Your task to perform on an android device: Go to location settings Image 0: 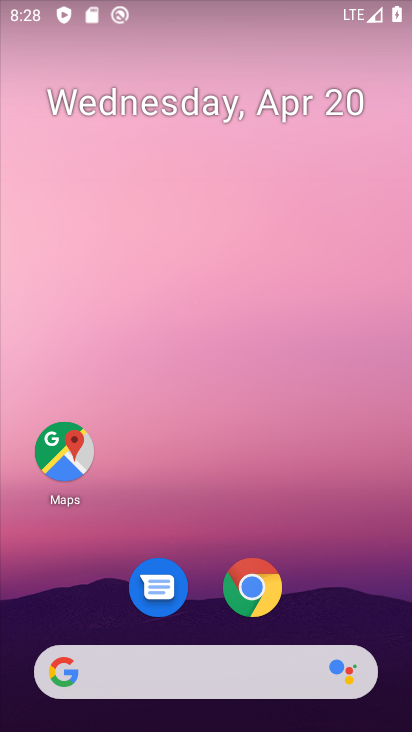
Step 0: drag from (365, 545) to (360, 197)
Your task to perform on an android device: Go to location settings Image 1: 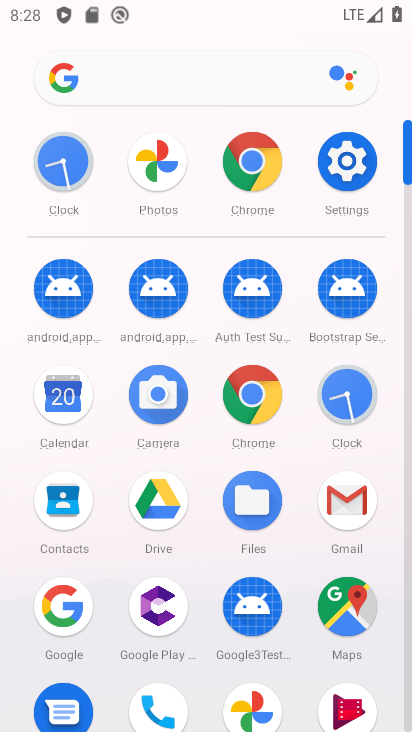
Step 1: click (349, 161)
Your task to perform on an android device: Go to location settings Image 2: 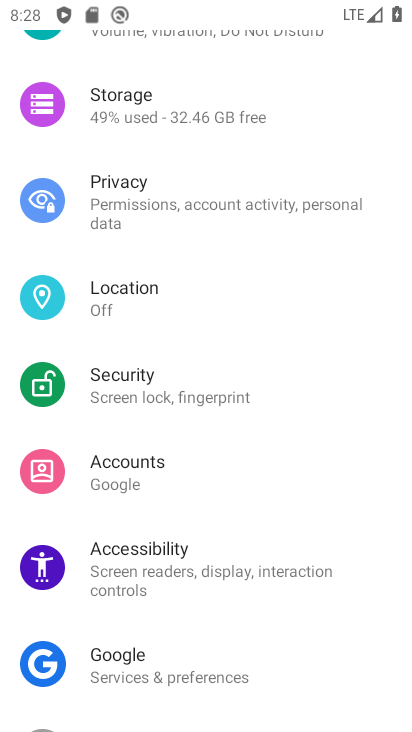
Step 2: drag from (365, 519) to (357, 325)
Your task to perform on an android device: Go to location settings Image 3: 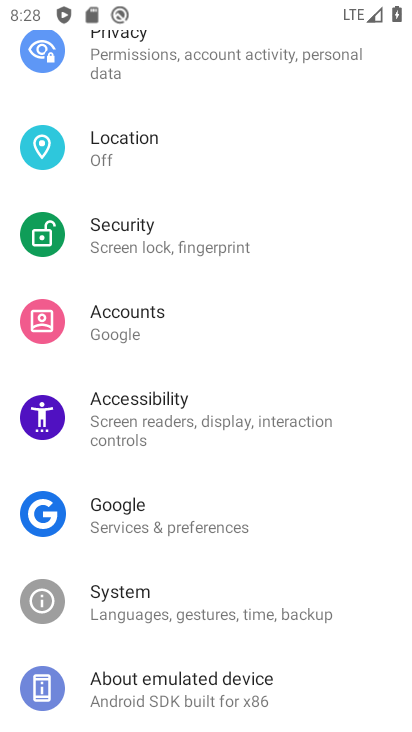
Step 3: drag from (355, 500) to (357, 392)
Your task to perform on an android device: Go to location settings Image 4: 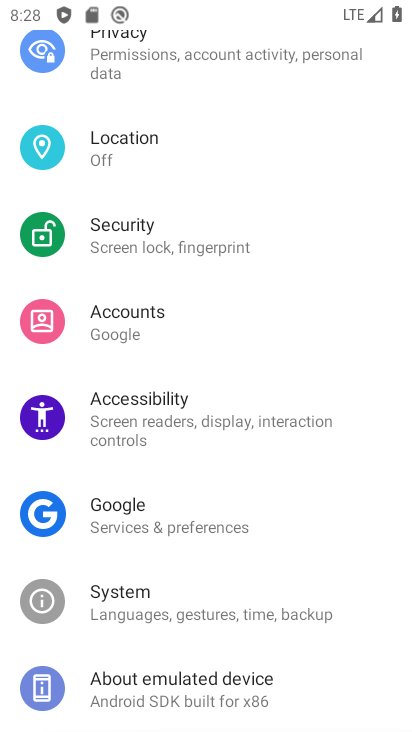
Step 4: drag from (366, 314) to (365, 440)
Your task to perform on an android device: Go to location settings Image 5: 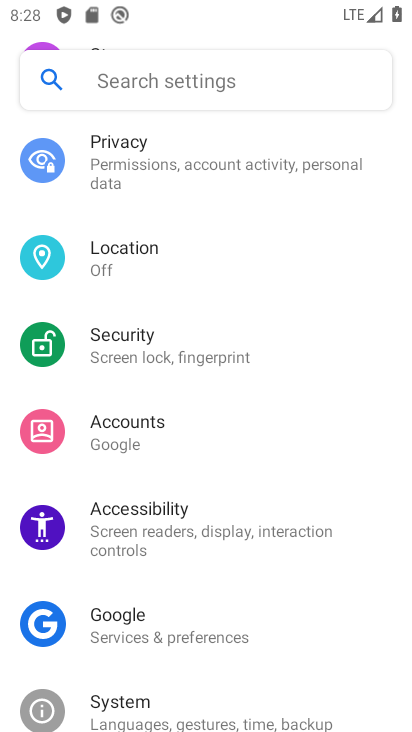
Step 5: drag from (376, 271) to (374, 406)
Your task to perform on an android device: Go to location settings Image 6: 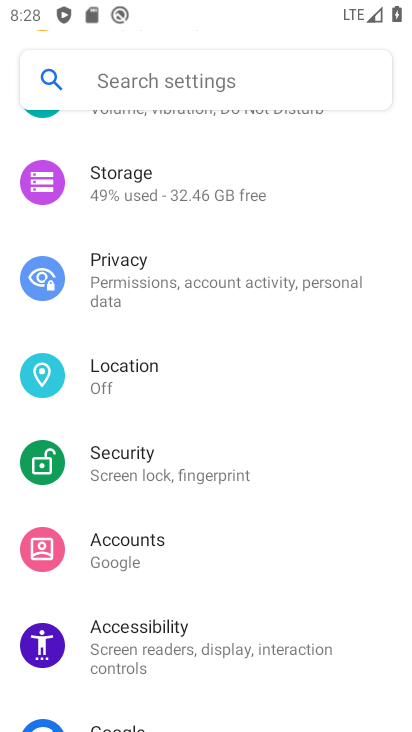
Step 6: drag from (384, 251) to (376, 396)
Your task to perform on an android device: Go to location settings Image 7: 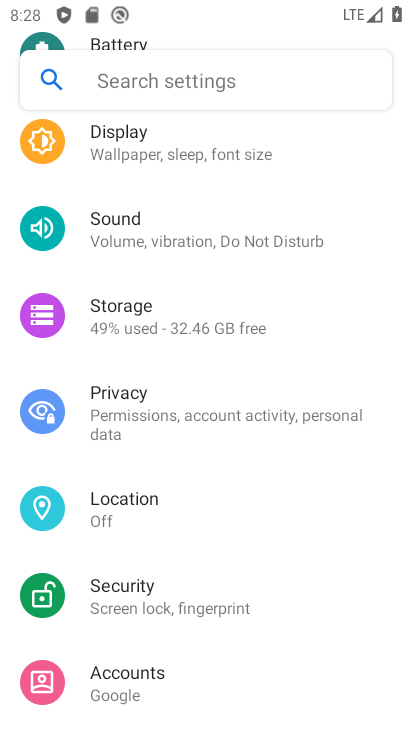
Step 7: drag from (383, 245) to (374, 384)
Your task to perform on an android device: Go to location settings Image 8: 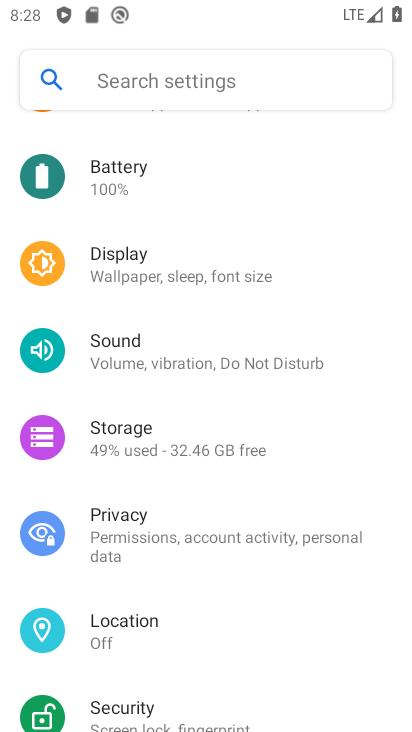
Step 8: drag from (371, 257) to (366, 407)
Your task to perform on an android device: Go to location settings Image 9: 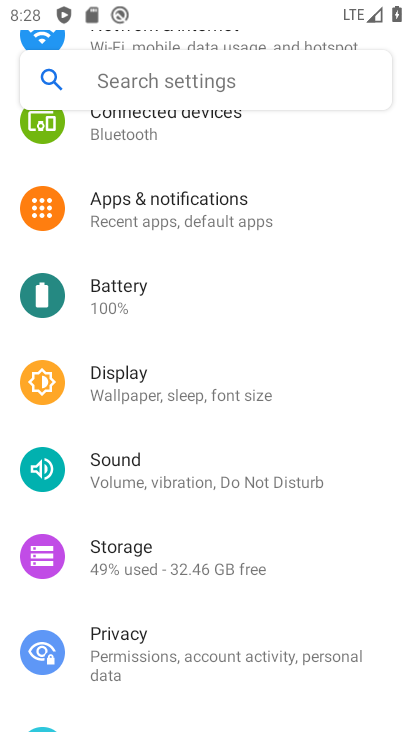
Step 9: drag from (359, 438) to (372, 293)
Your task to perform on an android device: Go to location settings Image 10: 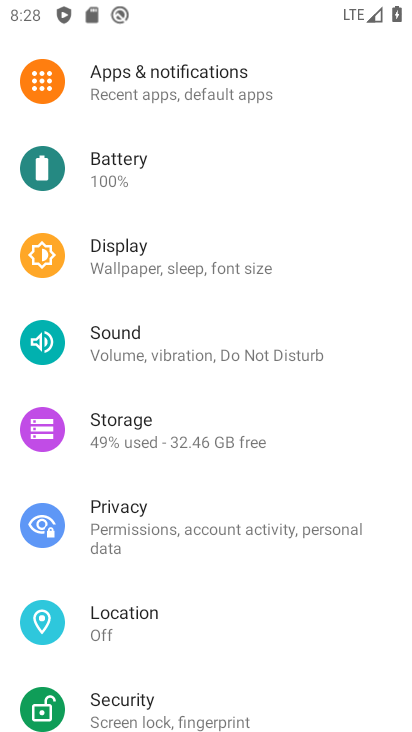
Step 10: drag from (368, 477) to (371, 358)
Your task to perform on an android device: Go to location settings Image 11: 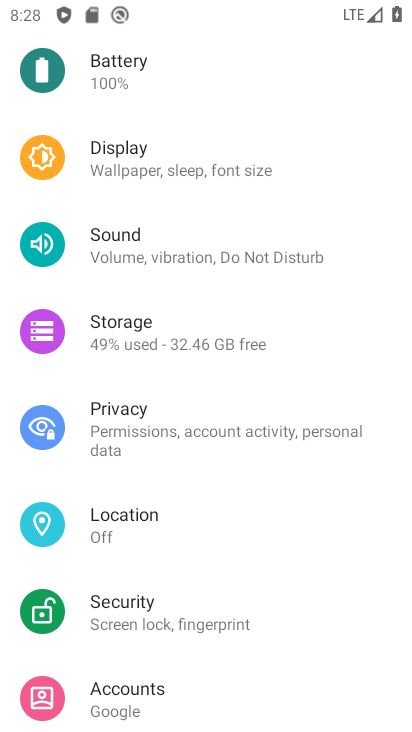
Step 11: click (199, 536)
Your task to perform on an android device: Go to location settings Image 12: 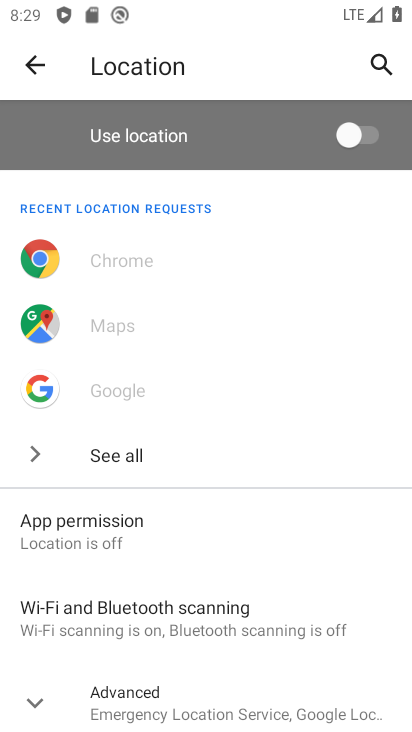
Step 12: task complete